Your task to perform on an android device: Open Google Maps Image 0: 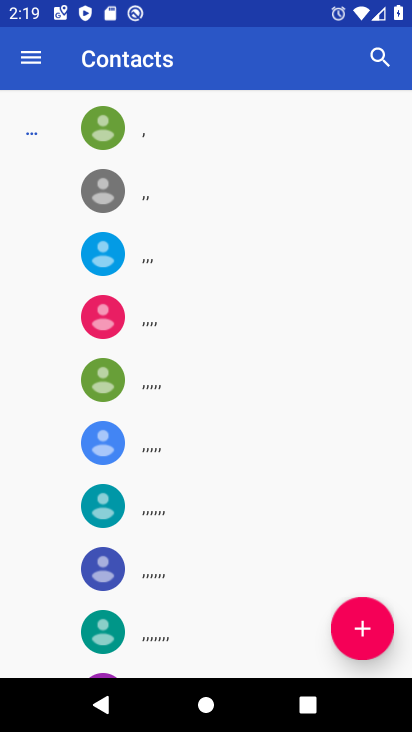
Step 0: press home button
Your task to perform on an android device: Open Google Maps Image 1: 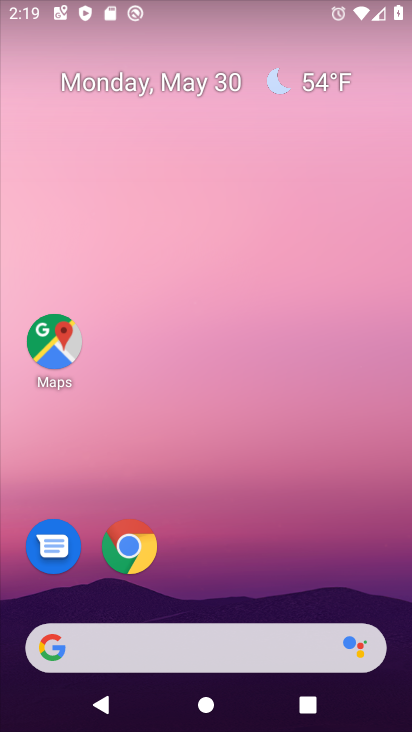
Step 1: click (54, 336)
Your task to perform on an android device: Open Google Maps Image 2: 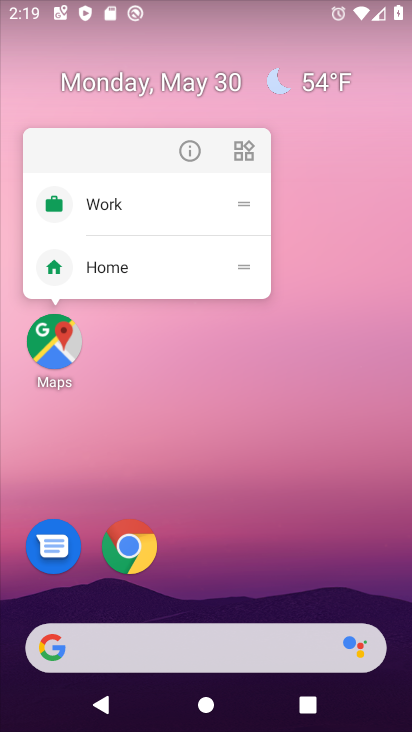
Step 2: click (52, 336)
Your task to perform on an android device: Open Google Maps Image 3: 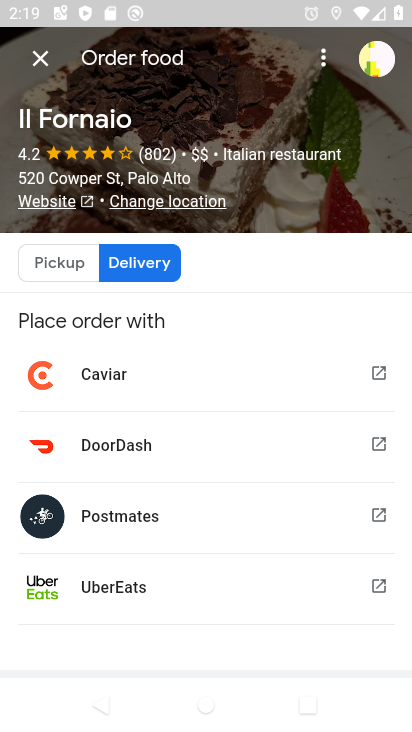
Step 3: click (41, 54)
Your task to perform on an android device: Open Google Maps Image 4: 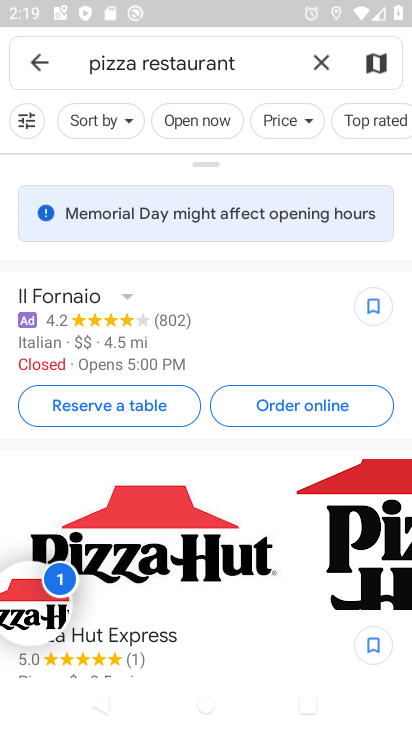
Step 4: click (40, 50)
Your task to perform on an android device: Open Google Maps Image 5: 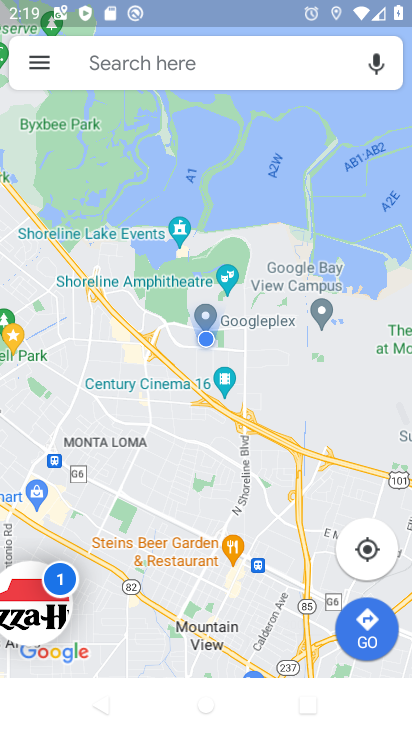
Step 5: task complete